Your task to perform on an android device: turn smart compose on in the gmail app Image 0: 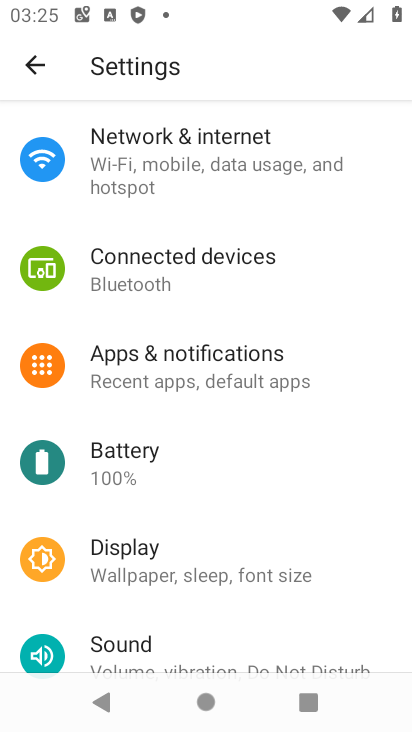
Step 0: press home button
Your task to perform on an android device: turn smart compose on in the gmail app Image 1: 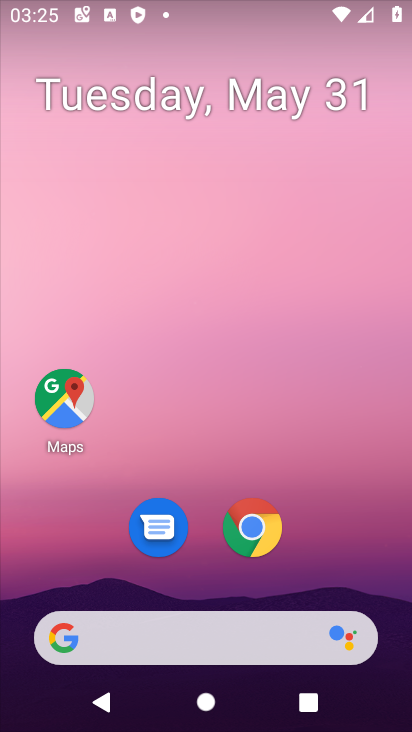
Step 1: drag from (406, 637) to (328, 20)
Your task to perform on an android device: turn smart compose on in the gmail app Image 2: 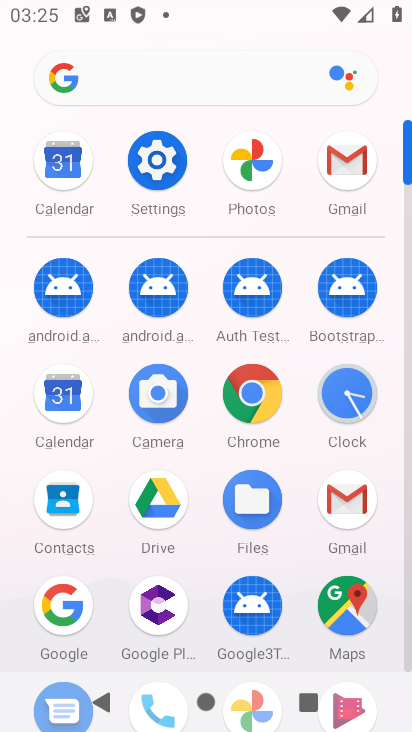
Step 2: click (348, 497)
Your task to perform on an android device: turn smart compose on in the gmail app Image 3: 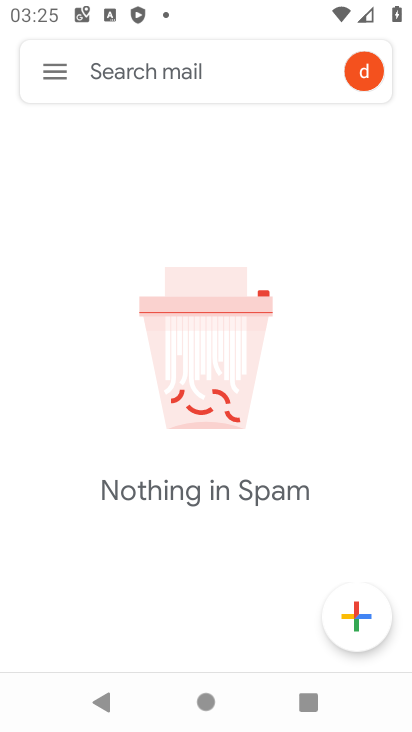
Step 3: click (56, 74)
Your task to perform on an android device: turn smart compose on in the gmail app Image 4: 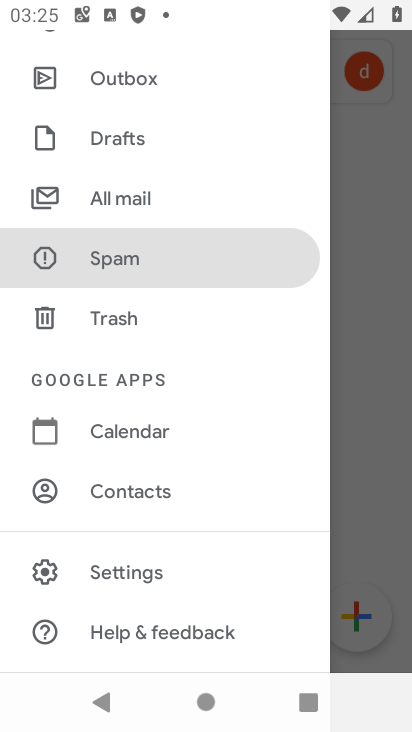
Step 4: click (132, 569)
Your task to perform on an android device: turn smart compose on in the gmail app Image 5: 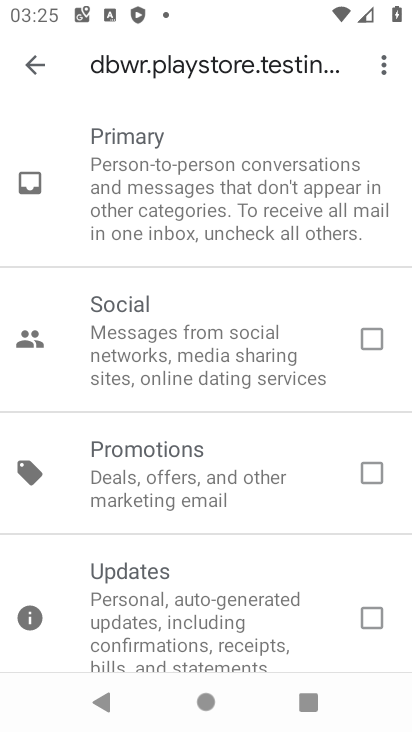
Step 5: task complete